Your task to perform on an android device: Check the news Image 0: 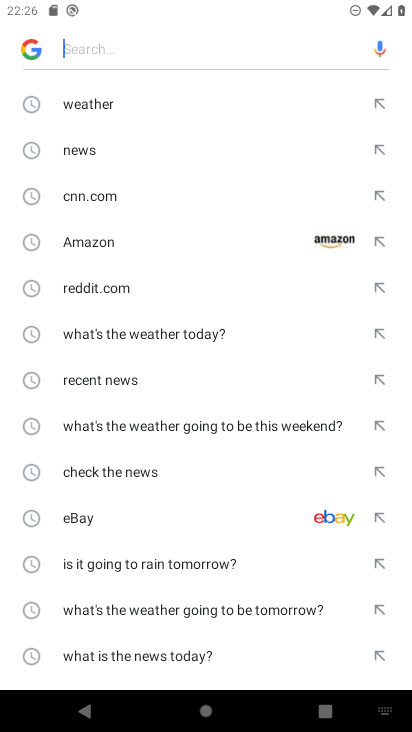
Step 0: press home button
Your task to perform on an android device: Check the news Image 1: 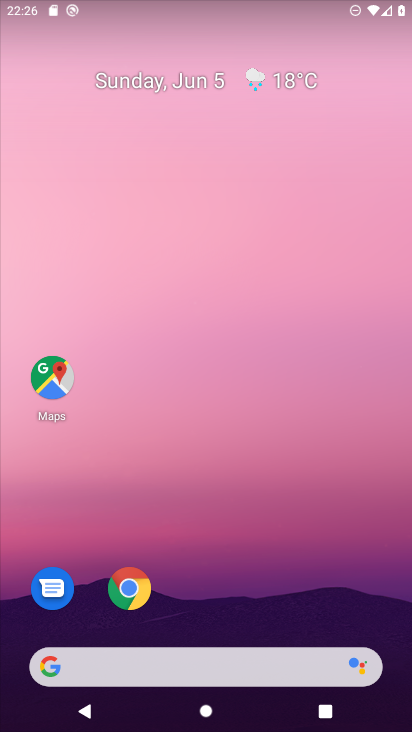
Step 1: task complete